Your task to perform on an android device: Go to notification settings Image 0: 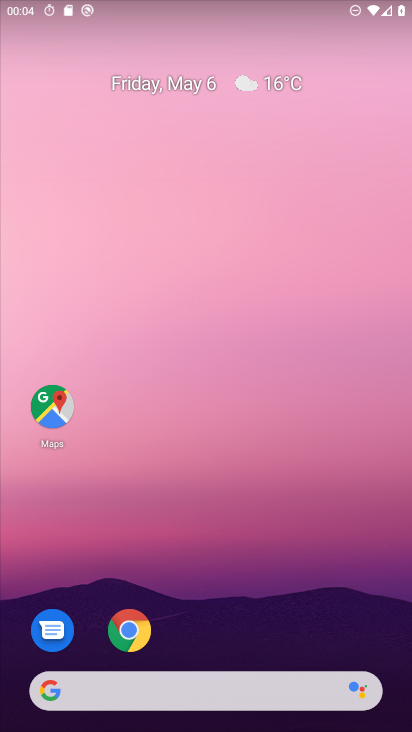
Step 0: drag from (276, 657) to (214, 96)
Your task to perform on an android device: Go to notification settings Image 1: 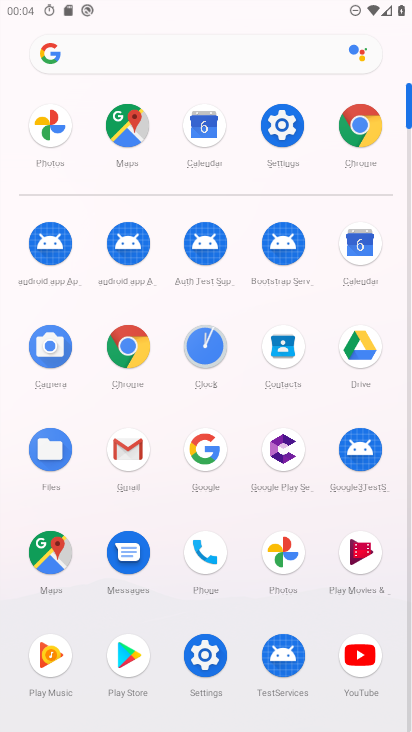
Step 1: click (287, 128)
Your task to perform on an android device: Go to notification settings Image 2: 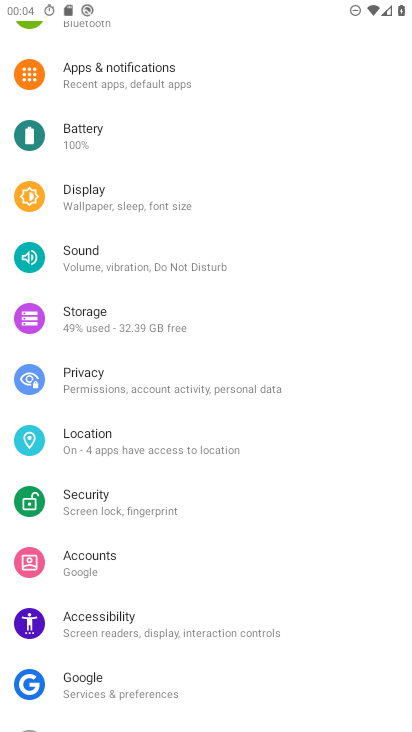
Step 2: click (139, 70)
Your task to perform on an android device: Go to notification settings Image 3: 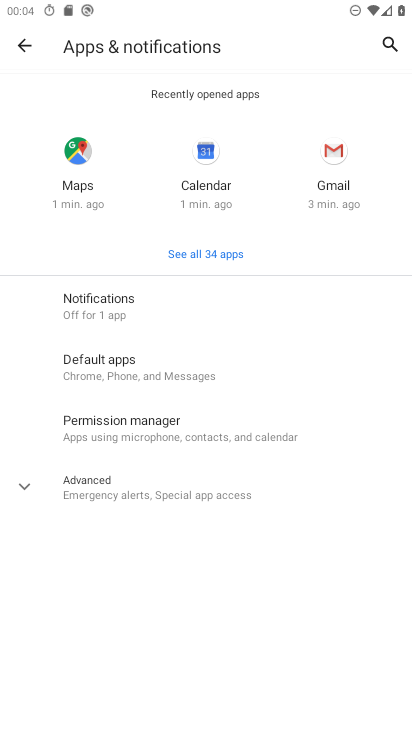
Step 3: click (143, 306)
Your task to perform on an android device: Go to notification settings Image 4: 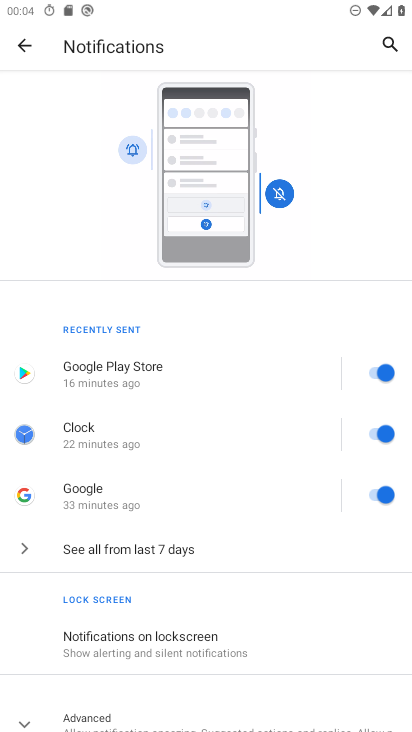
Step 4: task complete